Your task to perform on an android device: turn on the 24-hour format for clock Image 0: 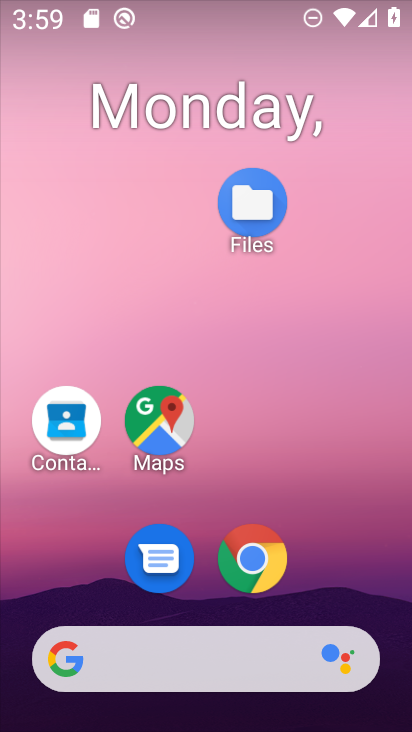
Step 0: drag from (257, 647) to (291, 200)
Your task to perform on an android device: turn on the 24-hour format for clock Image 1: 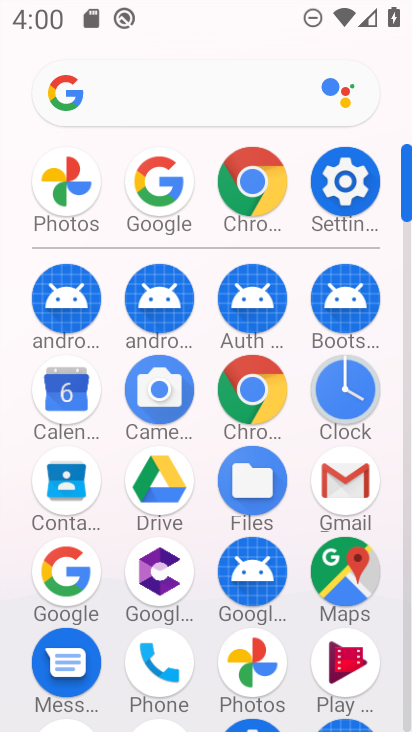
Step 1: click (326, 399)
Your task to perform on an android device: turn on the 24-hour format for clock Image 2: 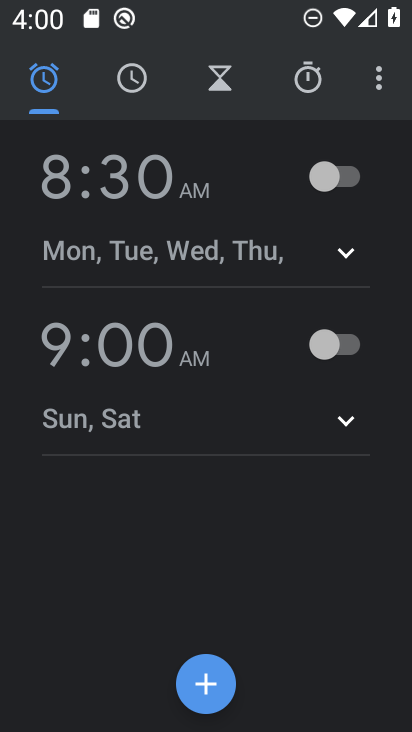
Step 2: click (372, 99)
Your task to perform on an android device: turn on the 24-hour format for clock Image 3: 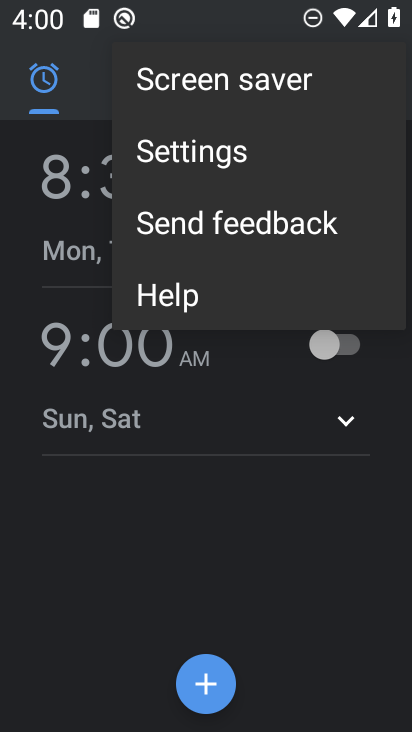
Step 3: click (207, 167)
Your task to perform on an android device: turn on the 24-hour format for clock Image 4: 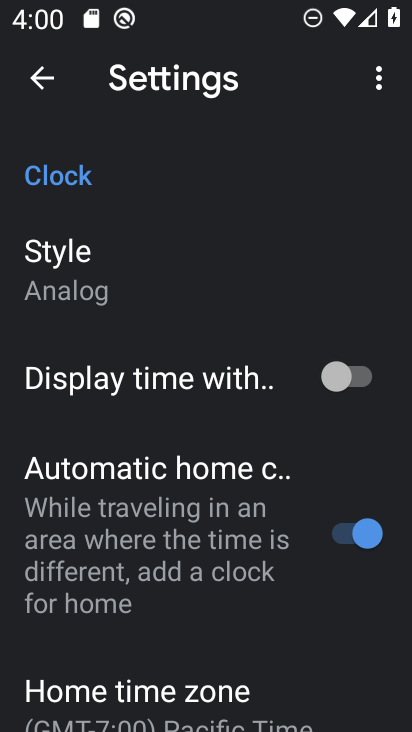
Step 4: drag from (106, 591) to (219, 231)
Your task to perform on an android device: turn on the 24-hour format for clock Image 5: 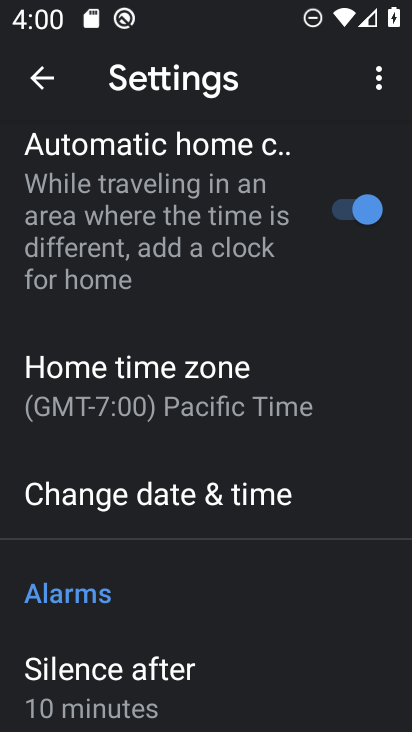
Step 5: click (285, 500)
Your task to perform on an android device: turn on the 24-hour format for clock Image 6: 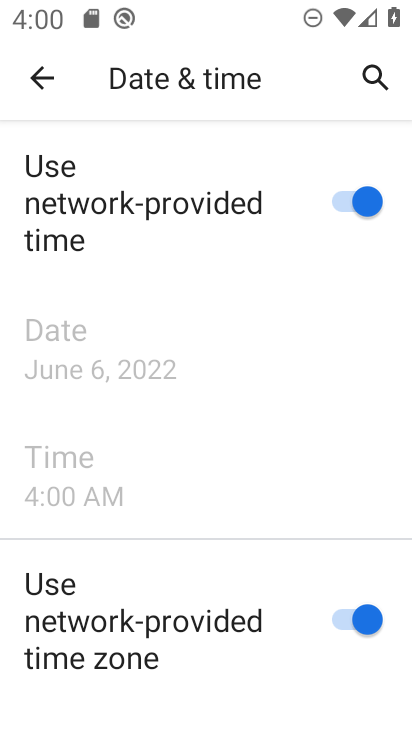
Step 6: task complete